Your task to perform on an android device: See recent photos Image 0: 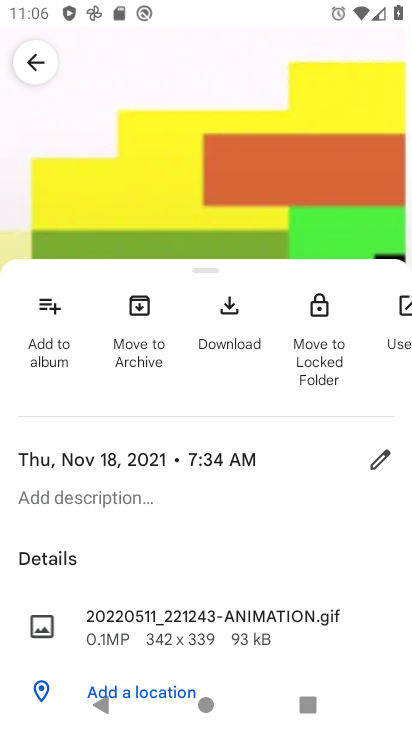
Step 0: press back button
Your task to perform on an android device: See recent photos Image 1: 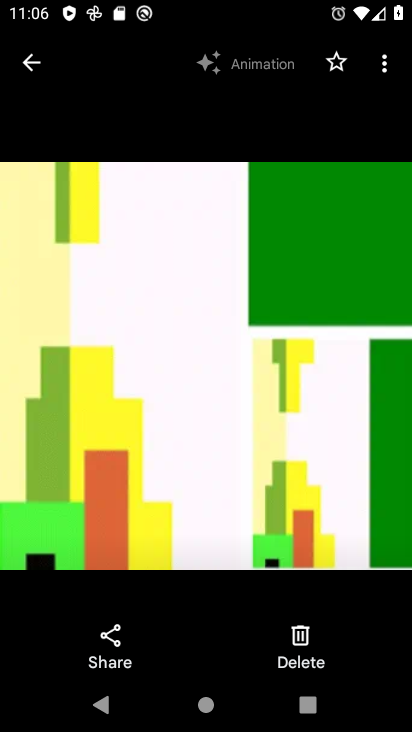
Step 1: click (27, 59)
Your task to perform on an android device: See recent photos Image 2: 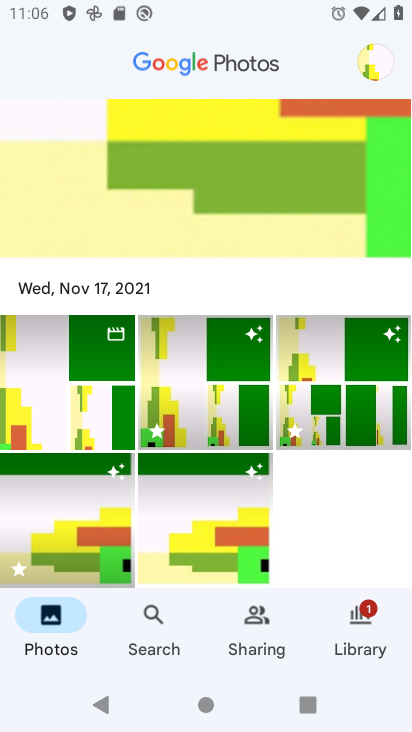
Step 2: press home button
Your task to perform on an android device: See recent photos Image 3: 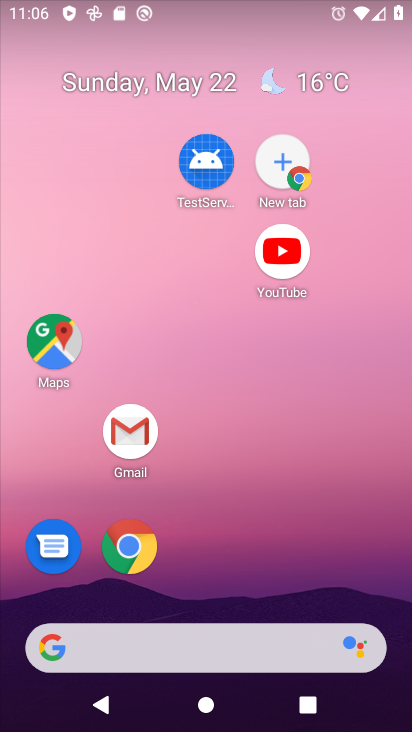
Step 3: drag from (226, 529) to (174, 179)
Your task to perform on an android device: See recent photos Image 4: 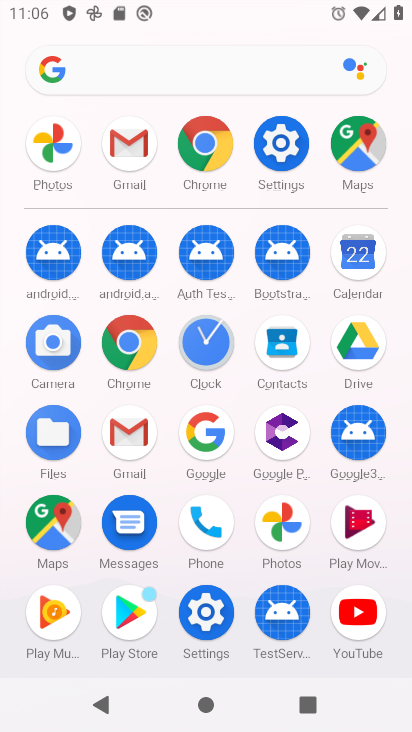
Step 4: click (283, 157)
Your task to perform on an android device: See recent photos Image 5: 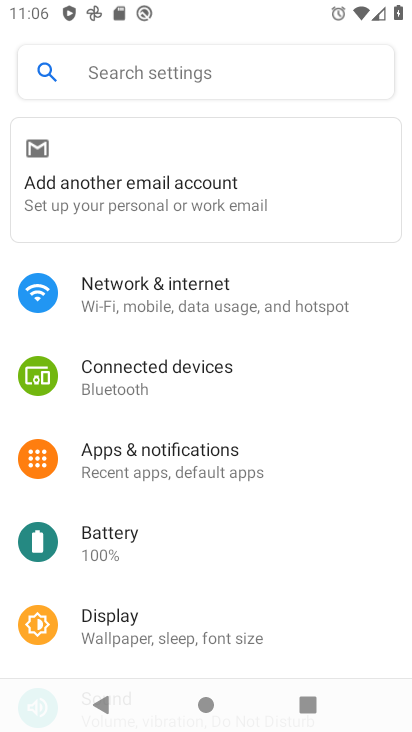
Step 5: press back button
Your task to perform on an android device: See recent photos Image 6: 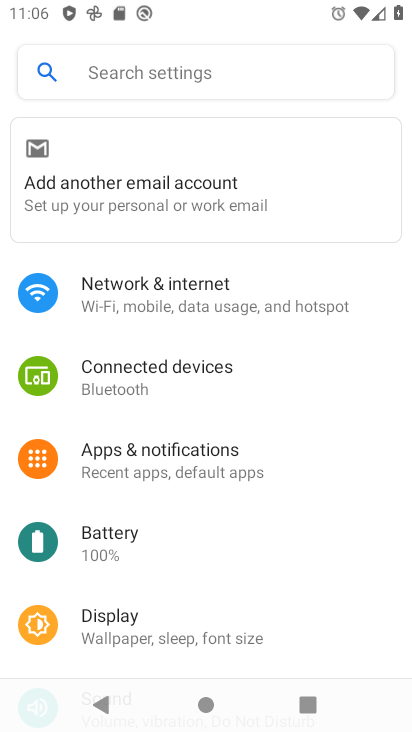
Step 6: press back button
Your task to perform on an android device: See recent photos Image 7: 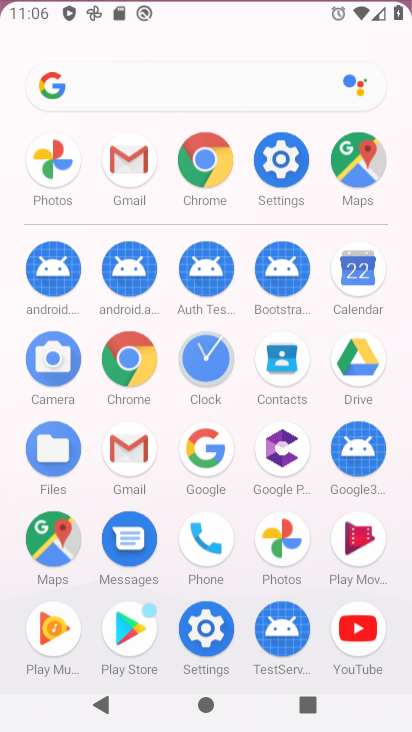
Step 7: press back button
Your task to perform on an android device: See recent photos Image 8: 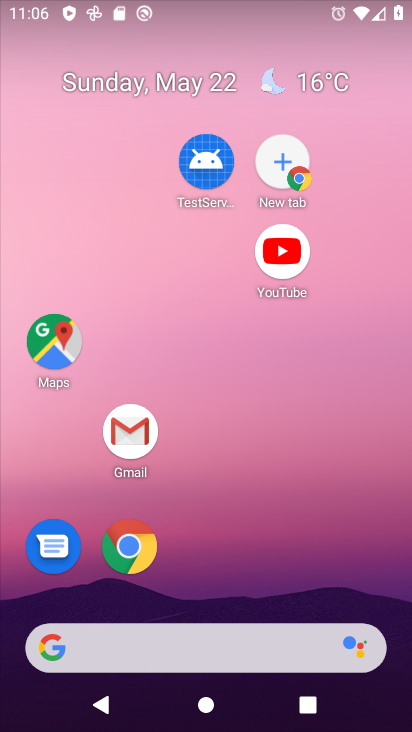
Step 8: drag from (227, 695) to (146, 114)
Your task to perform on an android device: See recent photos Image 9: 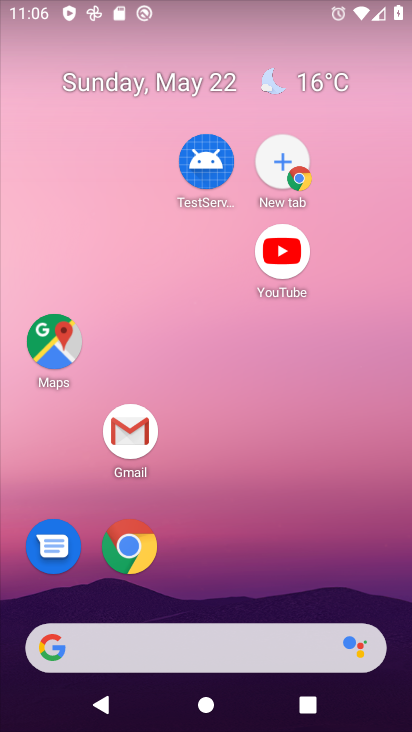
Step 9: drag from (251, 714) to (179, 50)
Your task to perform on an android device: See recent photos Image 10: 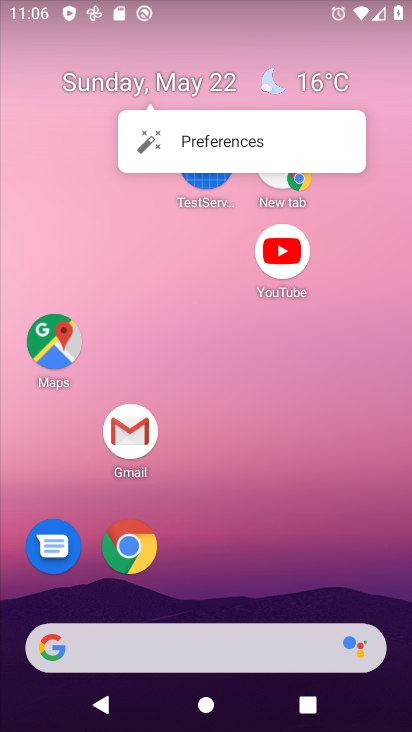
Step 10: drag from (247, 619) to (173, 112)
Your task to perform on an android device: See recent photos Image 11: 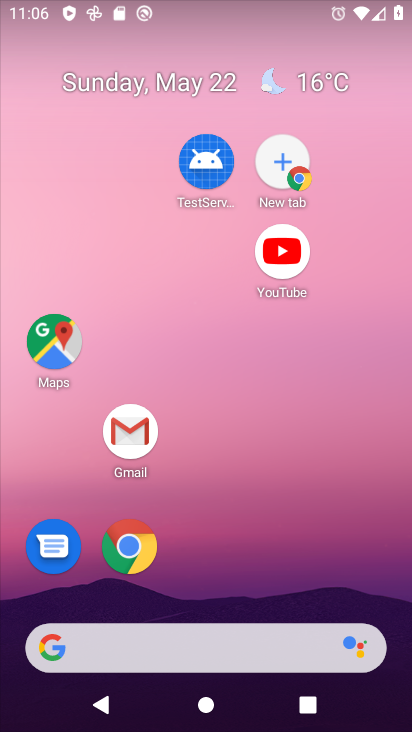
Step 11: drag from (243, 520) to (182, 80)
Your task to perform on an android device: See recent photos Image 12: 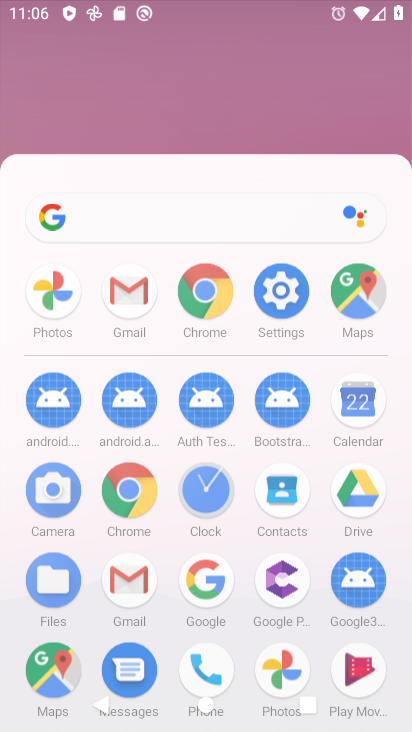
Step 12: drag from (262, 527) to (269, 14)
Your task to perform on an android device: See recent photos Image 13: 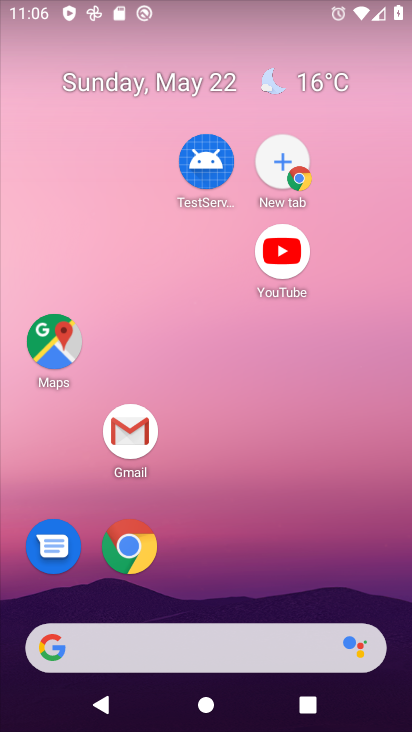
Step 13: drag from (241, 670) to (175, 214)
Your task to perform on an android device: See recent photos Image 14: 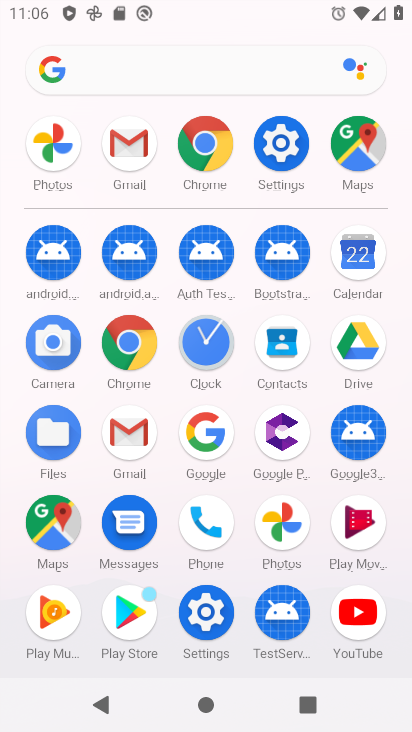
Step 14: drag from (250, 517) to (208, 0)
Your task to perform on an android device: See recent photos Image 15: 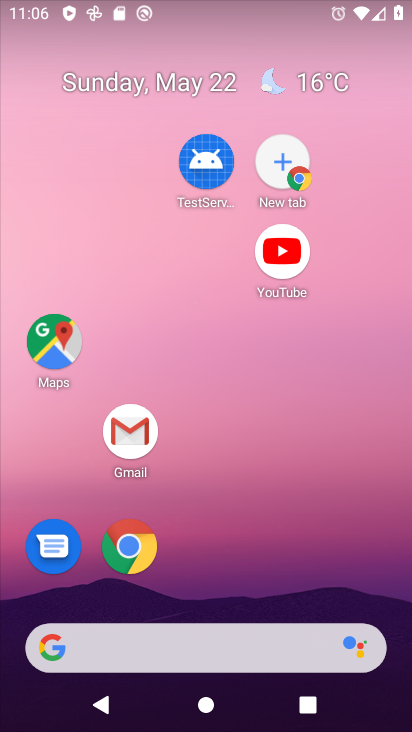
Step 15: drag from (271, 627) to (153, 304)
Your task to perform on an android device: See recent photos Image 16: 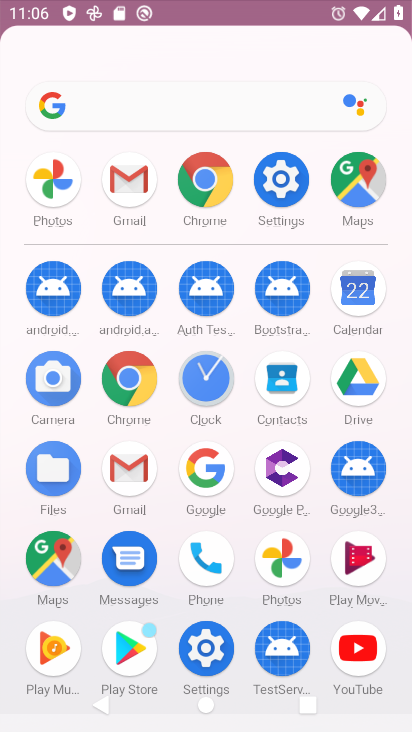
Step 16: drag from (143, 529) to (90, 112)
Your task to perform on an android device: See recent photos Image 17: 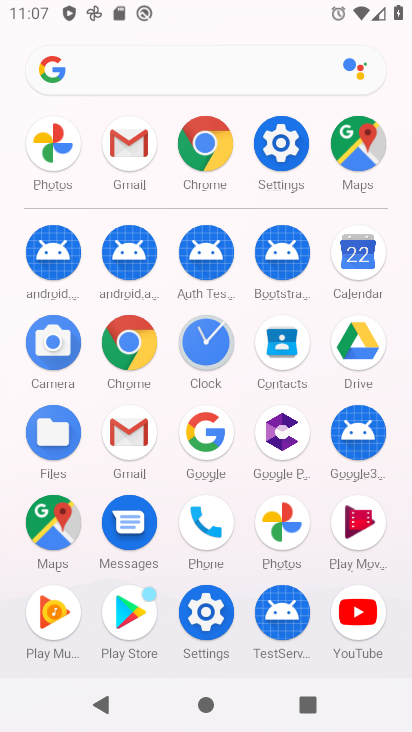
Step 17: click (280, 512)
Your task to perform on an android device: See recent photos Image 18: 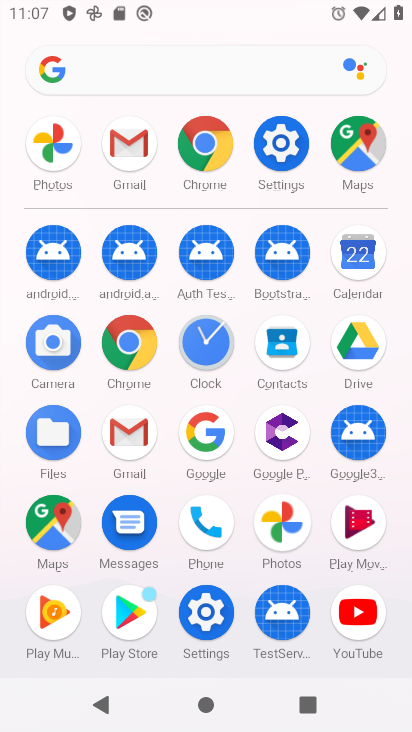
Step 18: click (281, 511)
Your task to perform on an android device: See recent photos Image 19: 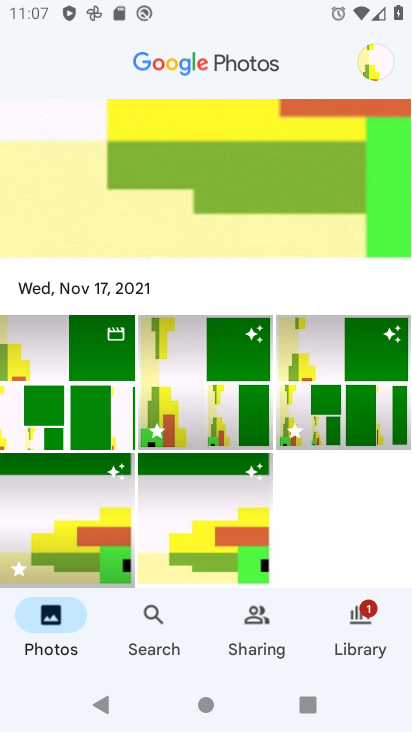
Step 19: task complete